Your task to perform on an android device: all mails in gmail Image 0: 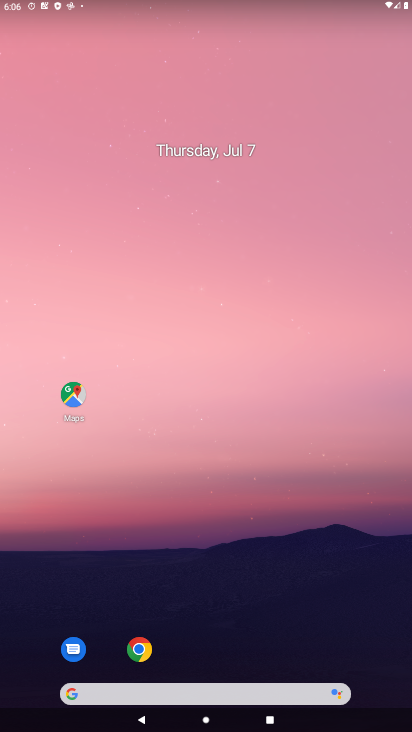
Step 0: drag from (372, 667) to (292, 0)
Your task to perform on an android device: all mails in gmail Image 1: 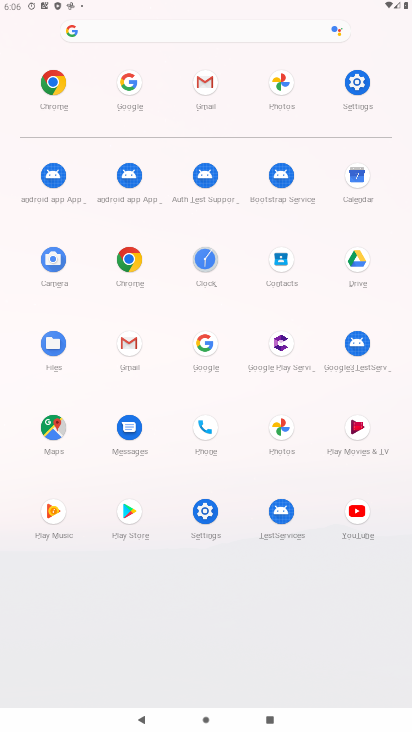
Step 1: click (193, 77)
Your task to perform on an android device: all mails in gmail Image 2: 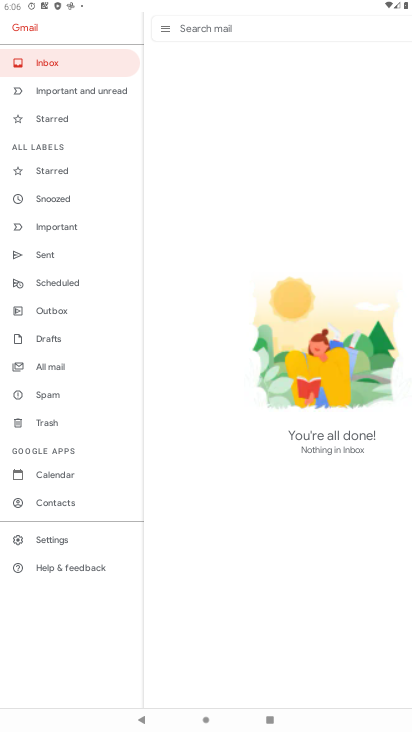
Step 2: click (64, 369)
Your task to perform on an android device: all mails in gmail Image 3: 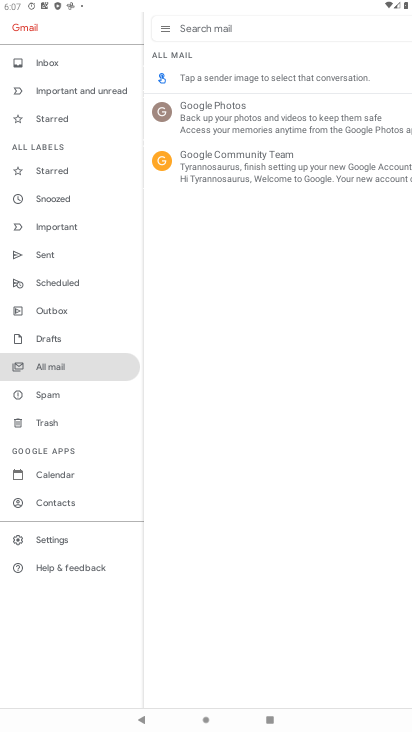
Step 3: task complete